Your task to perform on an android device: check data usage Image 0: 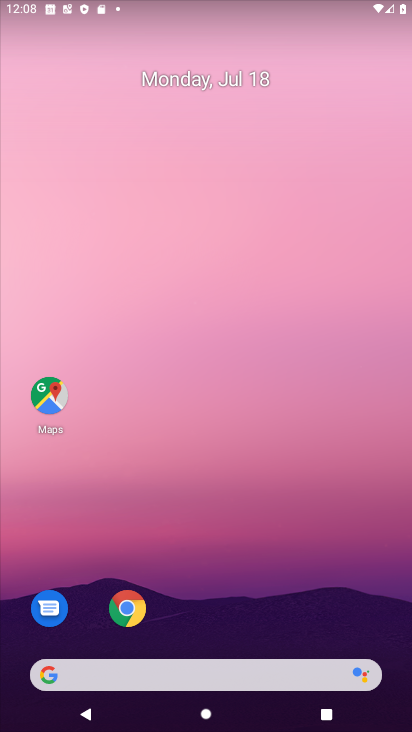
Step 0: drag from (255, 619) to (318, 150)
Your task to perform on an android device: check data usage Image 1: 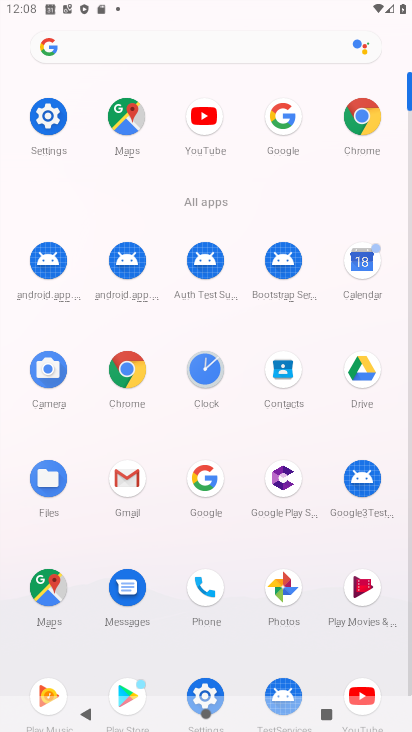
Step 1: click (48, 122)
Your task to perform on an android device: check data usage Image 2: 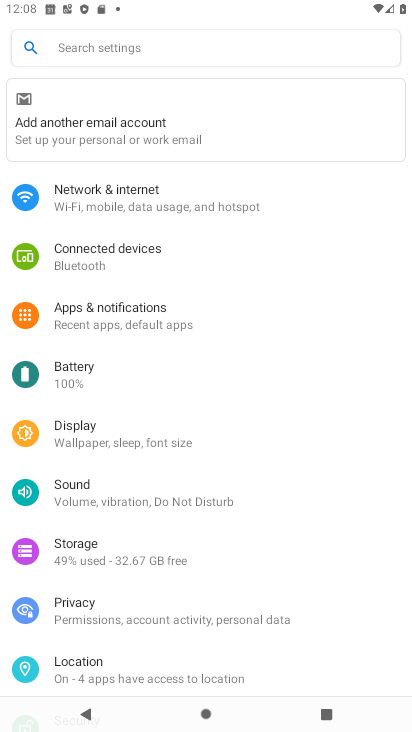
Step 2: click (228, 189)
Your task to perform on an android device: check data usage Image 3: 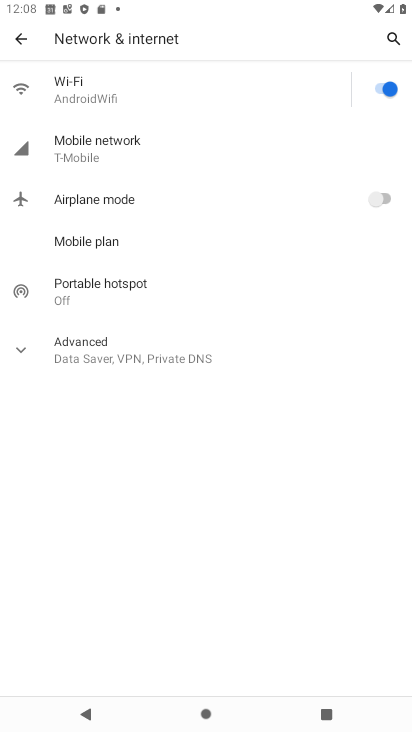
Step 3: click (134, 92)
Your task to perform on an android device: check data usage Image 4: 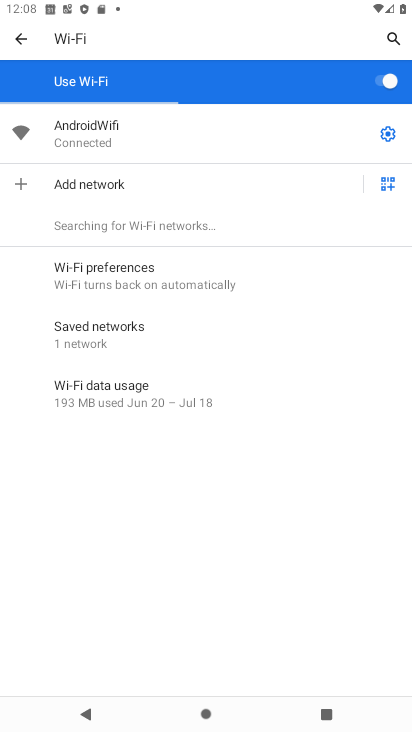
Step 4: click (134, 400)
Your task to perform on an android device: check data usage Image 5: 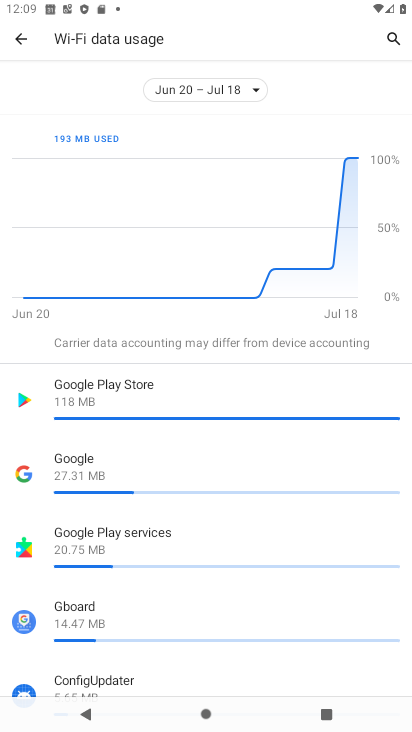
Step 5: task complete